Your task to perform on an android device: install app "Google Play Games" Image 0: 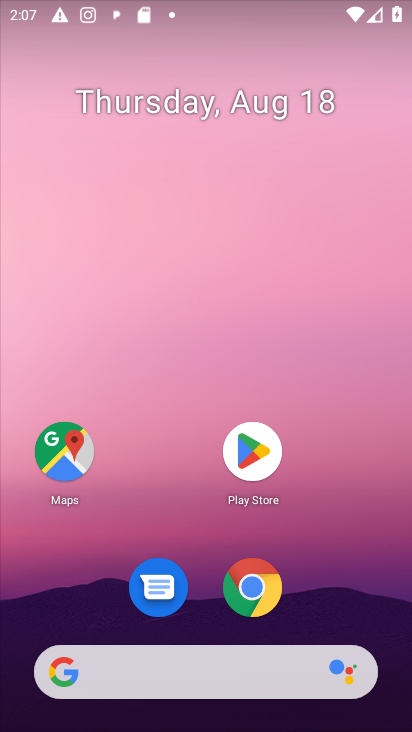
Step 0: click (244, 458)
Your task to perform on an android device: install app "Google Play Games" Image 1: 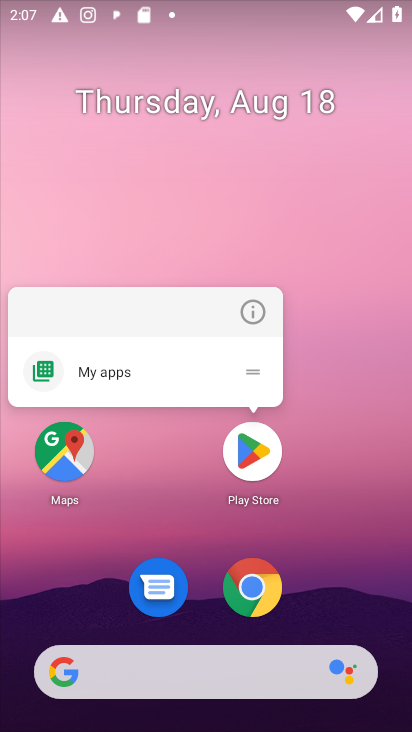
Step 1: click (248, 453)
Your task to perform on an android device: install app "Google Play Games" Image 2: 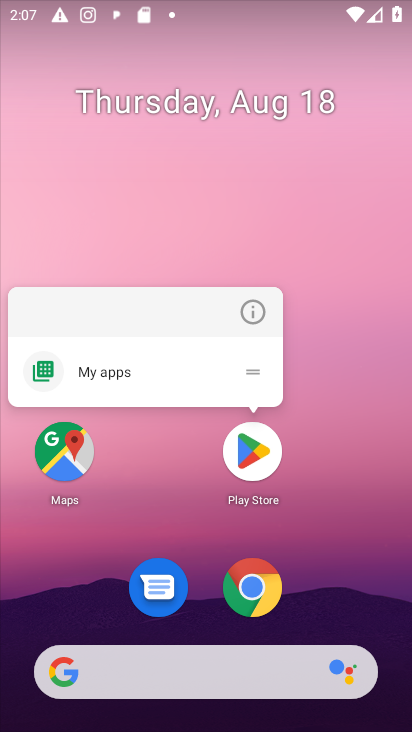
Step 2: click (248, 453)
Your task to perform on an android device: install app "Google Play Games" Image 3: 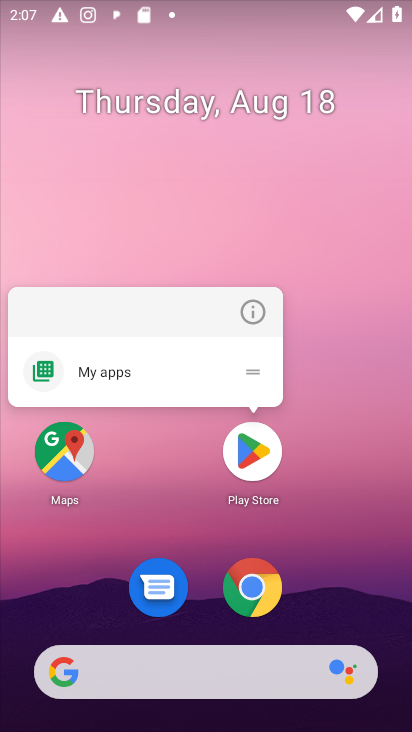
Step 3: click (249, 454)
Your task to perform on an android device: install app "Google Play Games" Image 4: 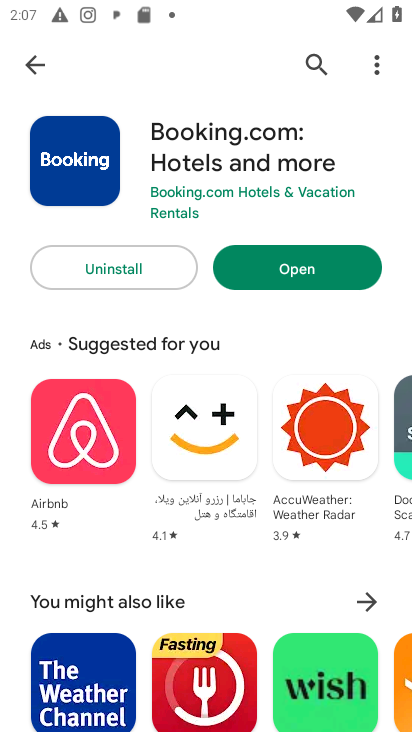
Step 4: click (312, 62)
Your task to perform on an android device: install app "Google Play Games" Image 5: 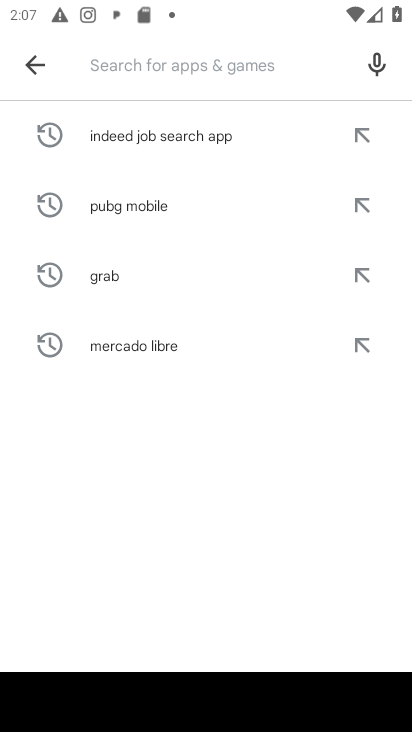
Step 5: type "Google Play Games"
Your task to perform on an android device: install app "Google Play Games" Image 6: 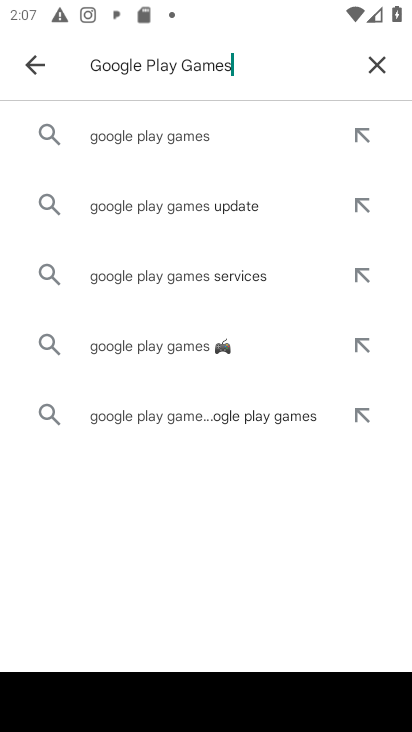
Step 6: click (164, 138)
Your task to perform on an android device: install app "Google Play Games" Image 7: 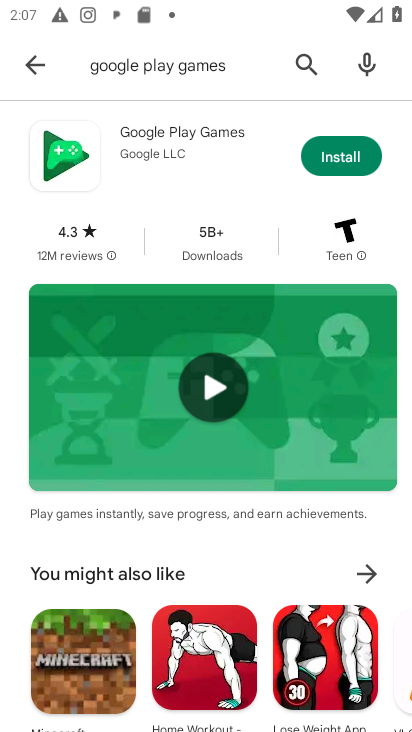
Step 7: click (337, 153)
Your task to perform on an android device: install app "Google Play Games" Image 8: 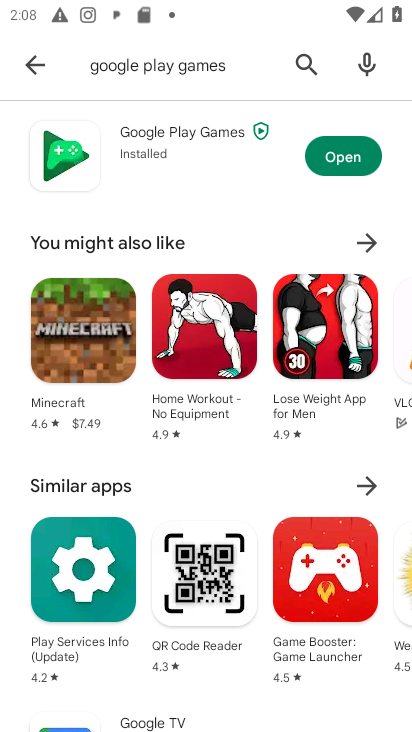
Step 8: task complete